Your task to perform on an android device: Do I have any events this weekend? Image 0: 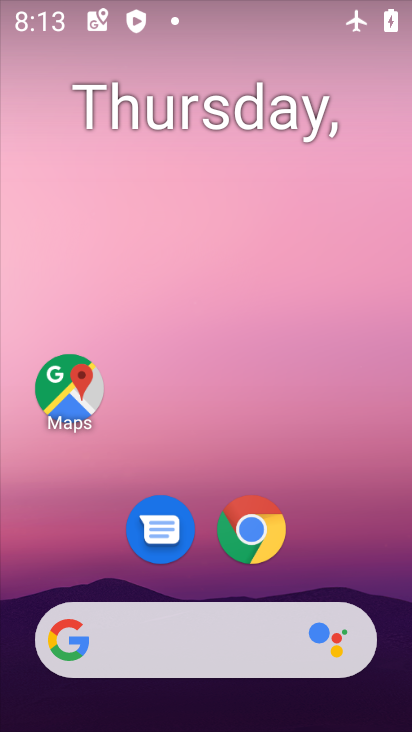
Step 0: drag from (188, 580) to (185, 89)
Your task to perform on an android device: Do I have any events this weekend? Image 1: 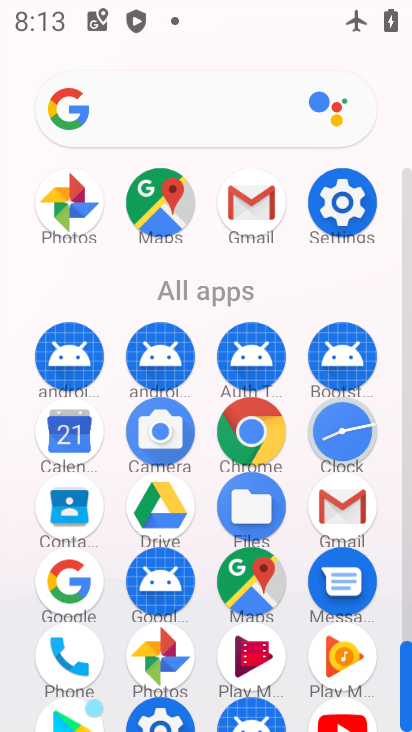
Step 1: click (58, 444)
Your task to perform on an android device: Do I have any events this weekend? Image 2: 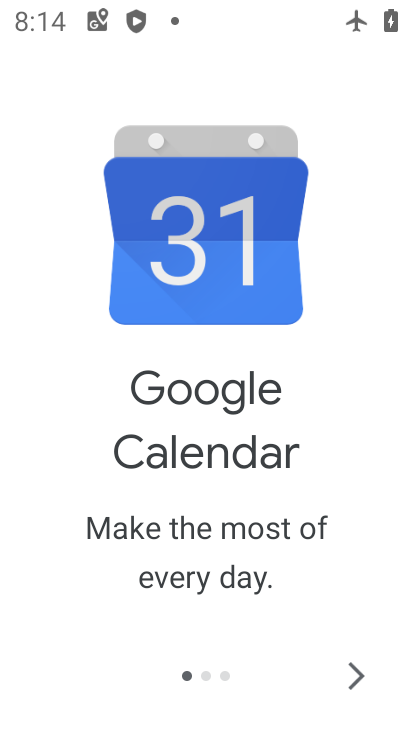
Step 2: click (352, 677)
Your task to perform on an android device: Do I have any events this weekend? Image 3: 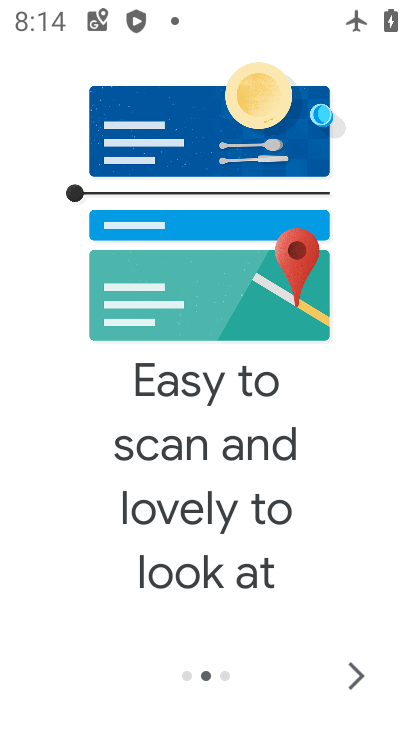
Step 3: click (352, 677)
Your task to perform on an android device: Do I have any events this weekend? Image 4: 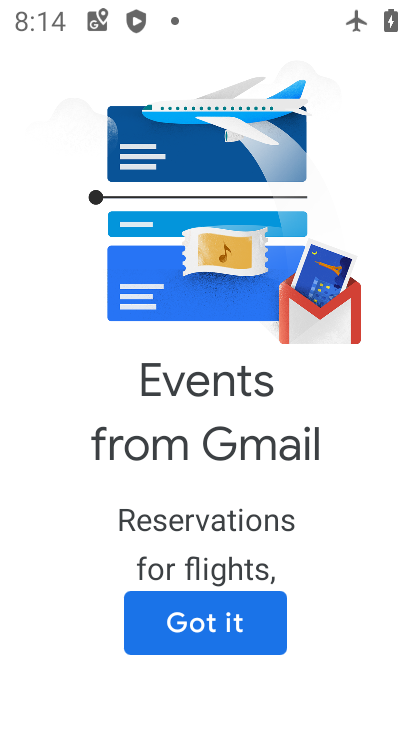
Step 4: click (191, 629)
Your task to perform on an android device: Do I have any events this weekend? Image 5: 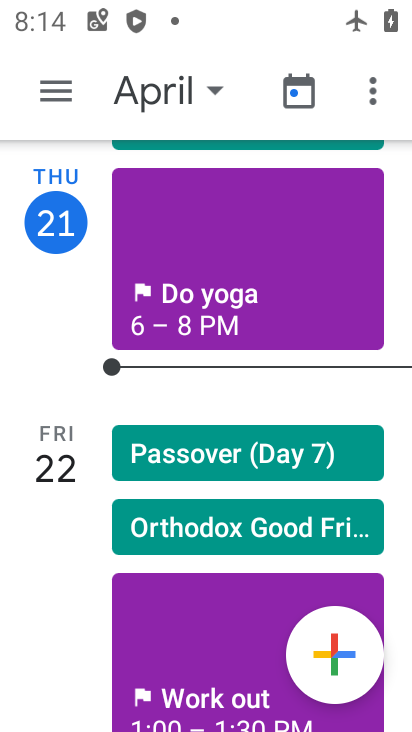
Step 5: click (155, 90)
Your task to perform on an android device: Do I have any events this weekend? Image 6: 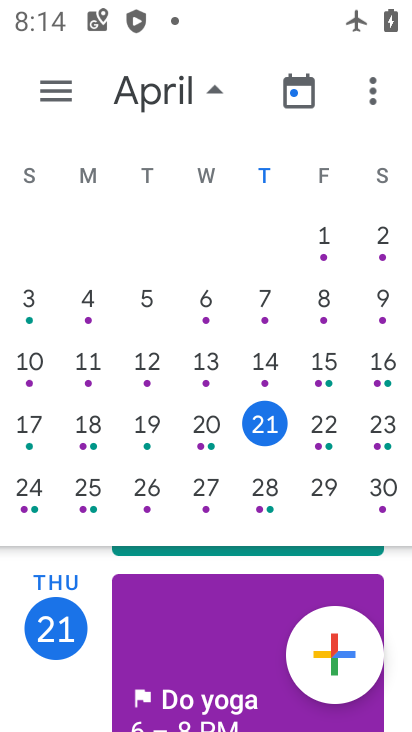
Step 6: click (379, 422)
Your task to perform on an android device: Do I have any events this weekend? Image 7: 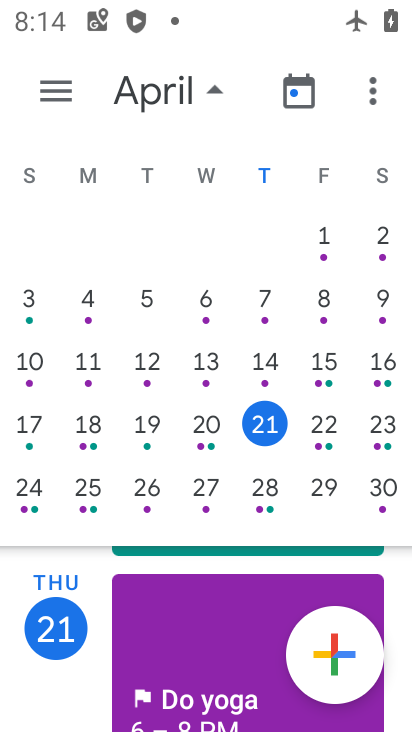
Step 7: click (380, 428)
Your task to perform on an android device: Do I have any events this weekend? Image 8: 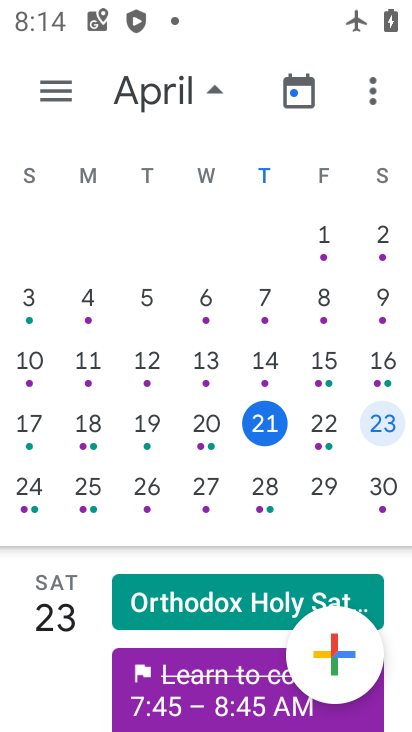
Step 8: click (62, 94)
Your task to perform on an android device: Do I have any events this weekend? Image 9: 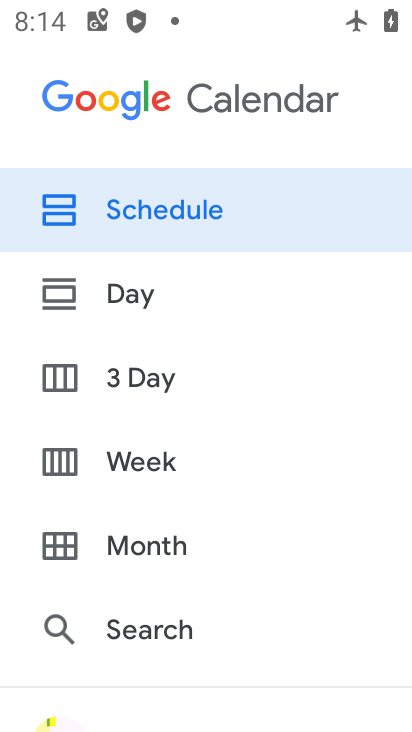
Step 9: click (133, 288)
Your task to perform on an android device: Do I have any events this weekend? Image 10: 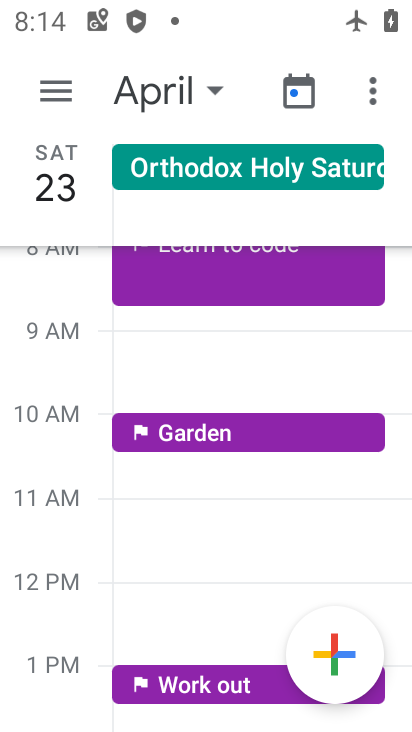
Step 10: click (56, 92)
Your task to perform on an android device: Do I have any events this weekend? Image 11: 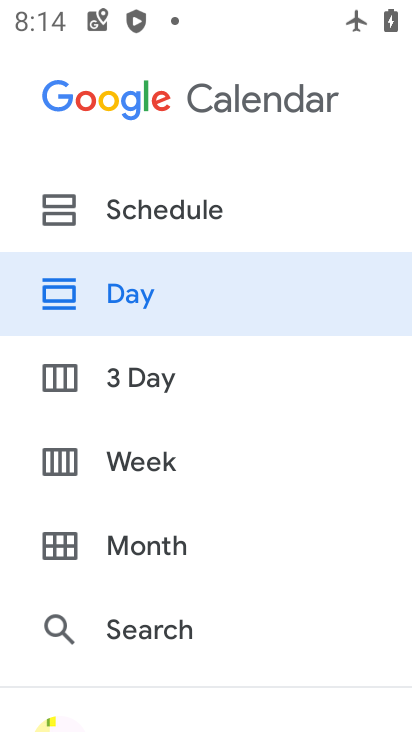
Step 11: click (140, 194)
Your task to perform on an android device: Do I have any events this weekend? Image 12: 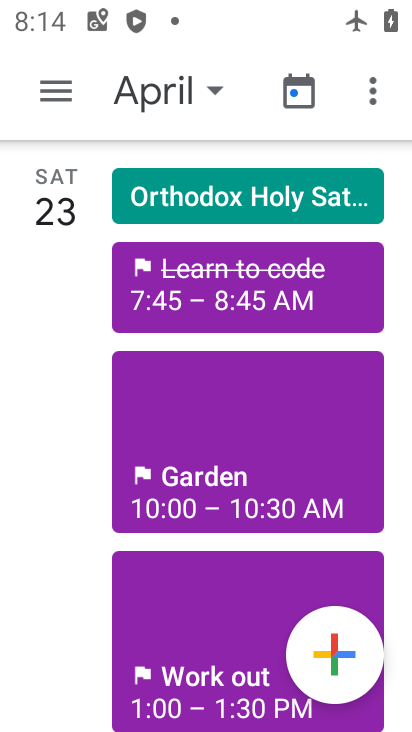
Step 12: click (218, 414)
Your task to perform on an android device: Do I have any events this weekend? Image 13: 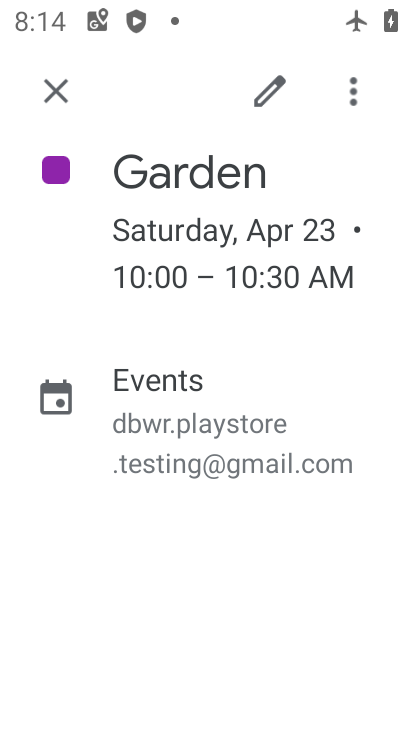
Step 13: task complete